Your task to perform on an android device: turn off notifications settings in the gmail app Image 0: 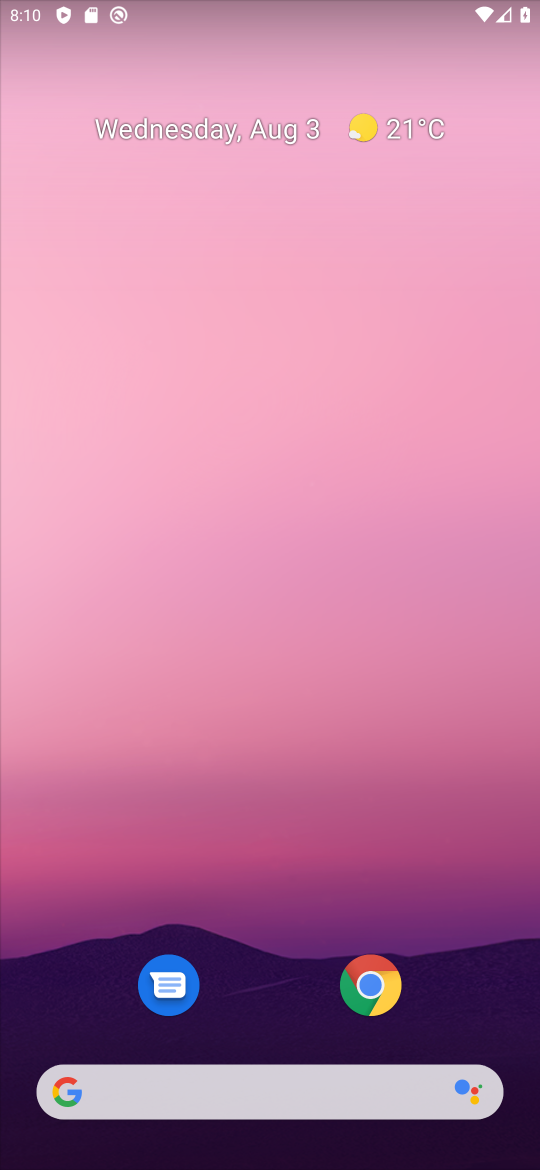
Step 0: drag from (265, 977) to (252, 110)
Your task to perform on an android device: turn off notifications settings in the gmail app Image 1: 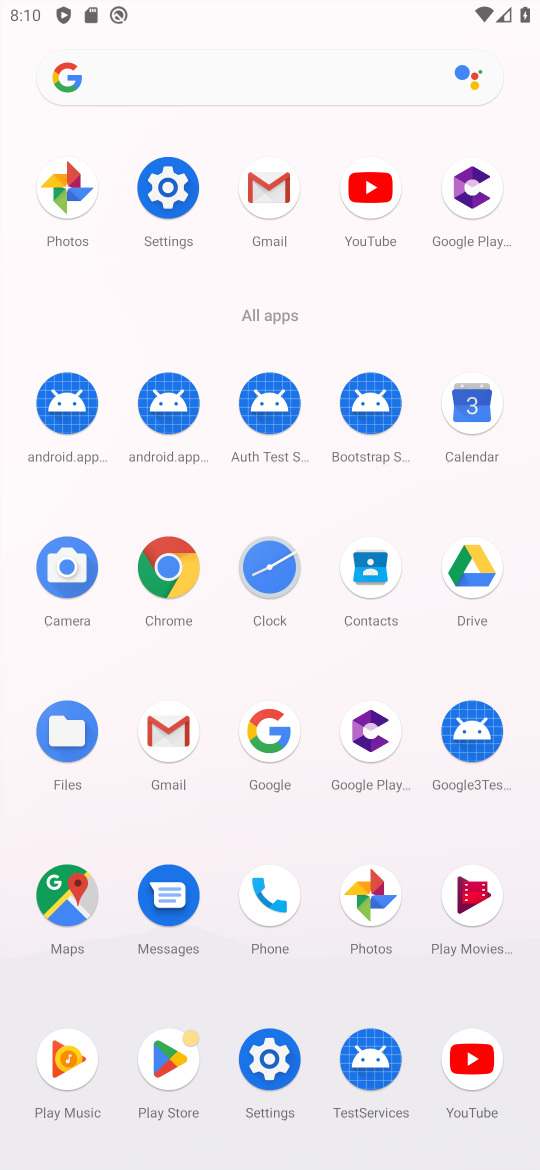
Step 1: click (180, 716)
Your task to perform on an android device: turn off notifications settings in the gmail app Image 2: 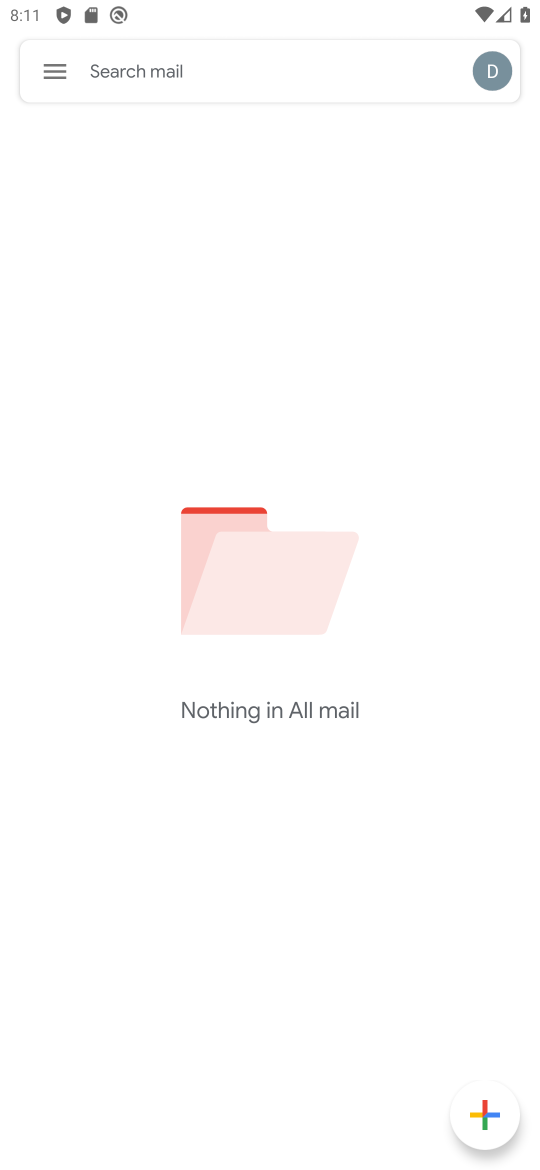
Step 2: click (55, 77)
Your task to perform on an android device: turn off notifications settings in the gmail app Image 3: 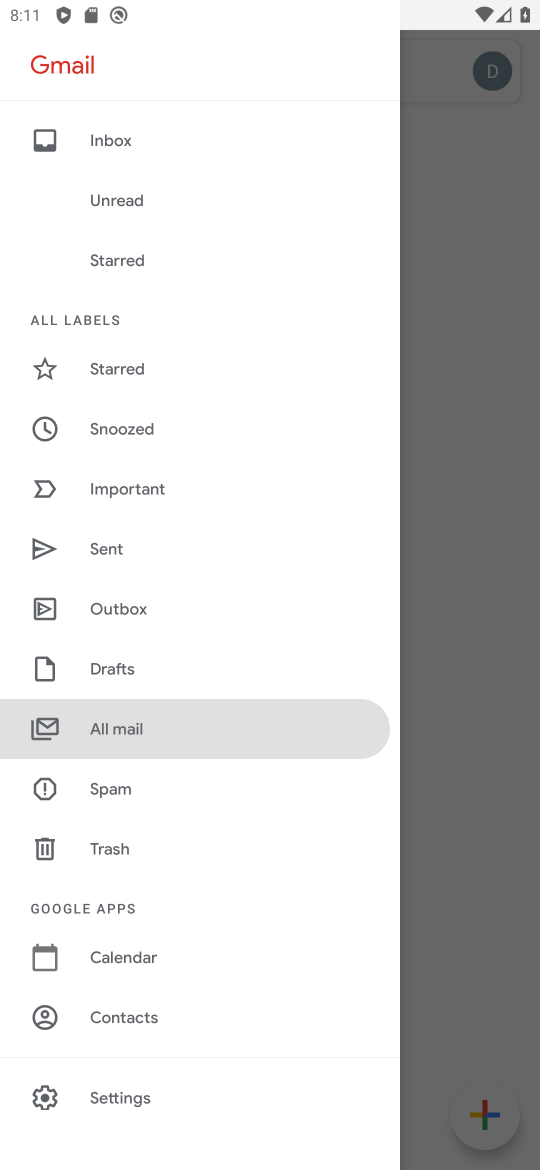
Step 3: click (132, 1079)
Your task to perform on an android device: turn off notifications settings in the gmail app Image 4: 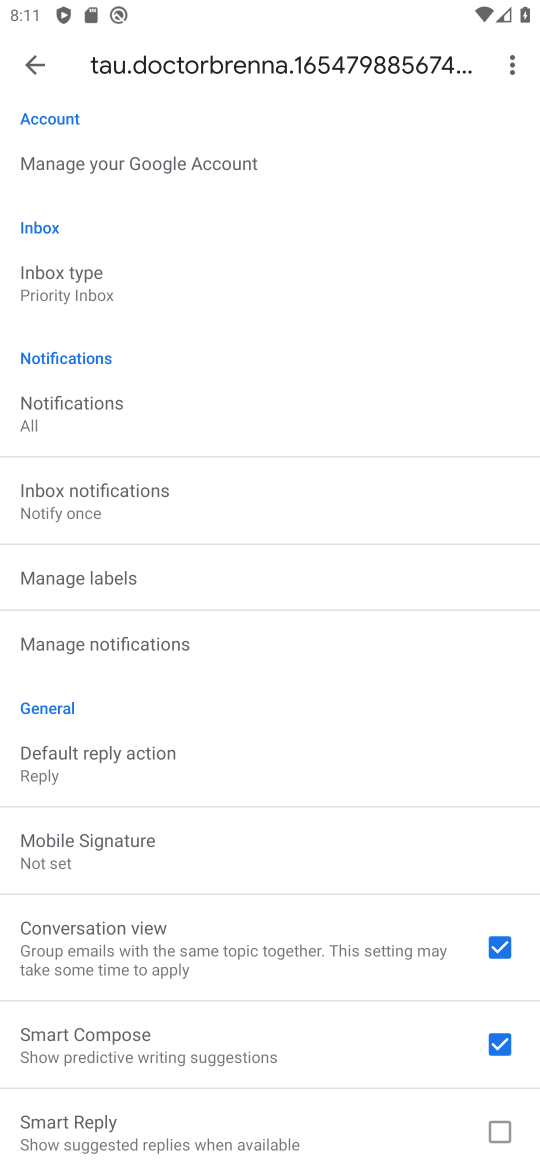
Step 4: click (195, 627)
Your task to perform on an android device: turn off notifications settings in the gmail app Image 5: 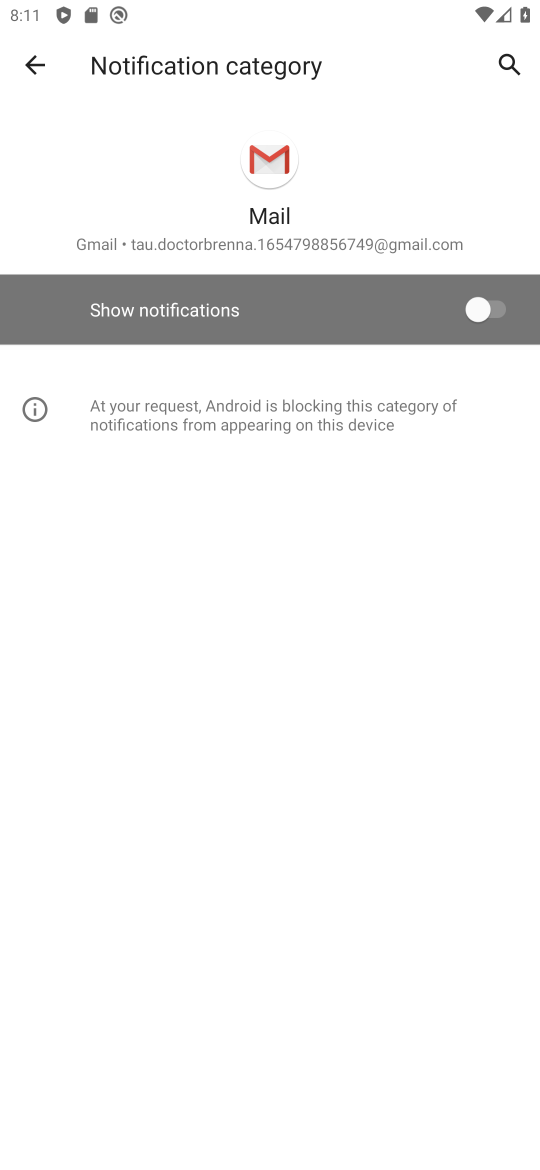
Step 5: task complete